Your task to perform on an android device: set default search engine in the chrome app Image 0: 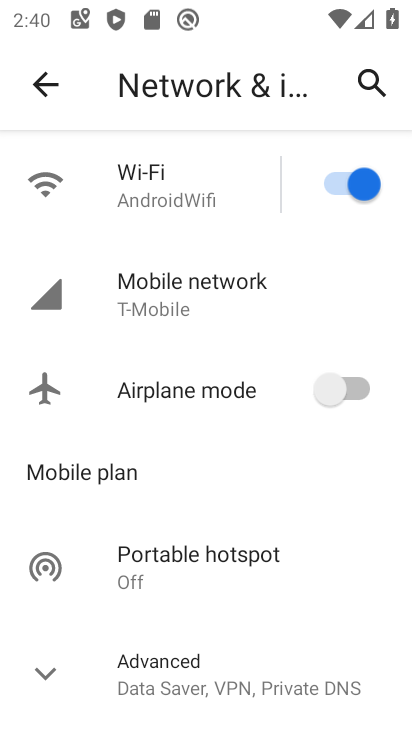
Step 0: press home button
Your task to perform on an android device: set default search engine in the chrome app Image 1: 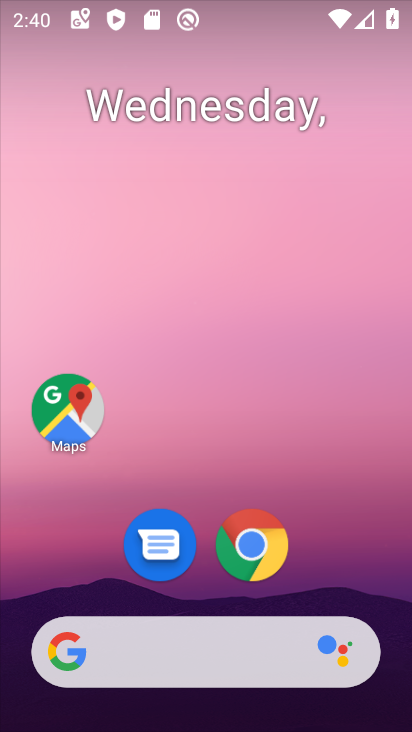
Step 1: drag from (208, 662) to (321, 190)
Your task to perform on an android device: set default search engine in the chrome app Image 2: 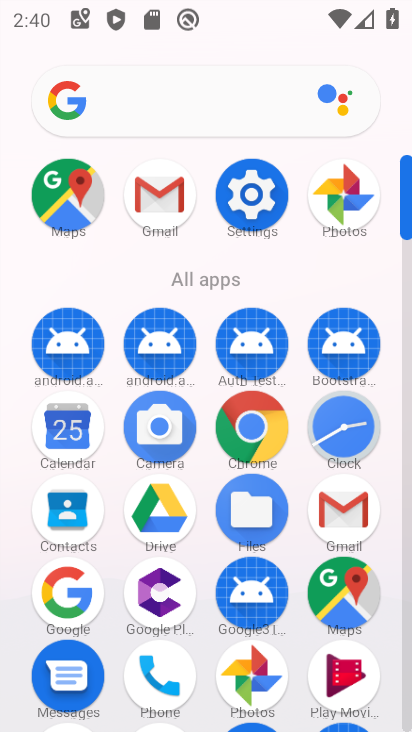
Step 2: click (256, 438)
Your task to perform on an android device: set default search engine in the chrome app Image 3: 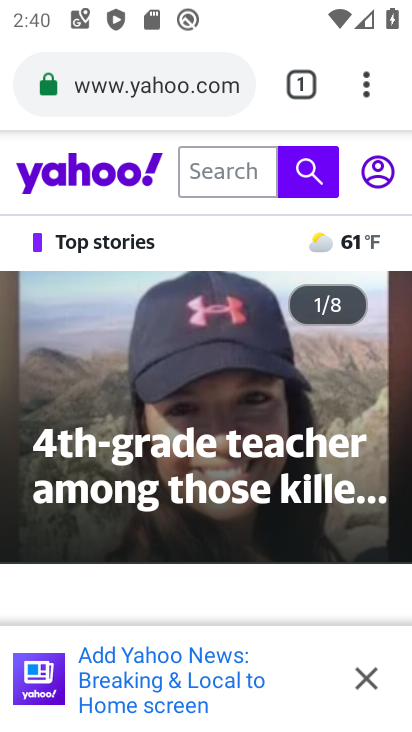
Step 3: drag from (362, 88) to (129, 598)
Your task to perform on an android device: set default search engine in the chrome app Image 4: 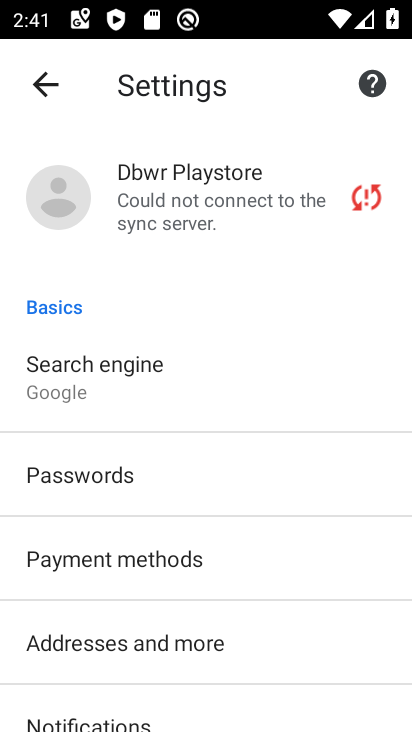
Step 4: click (86, 395)
Your task to perform on an android device: set default search engine in the chrome app Image 5: 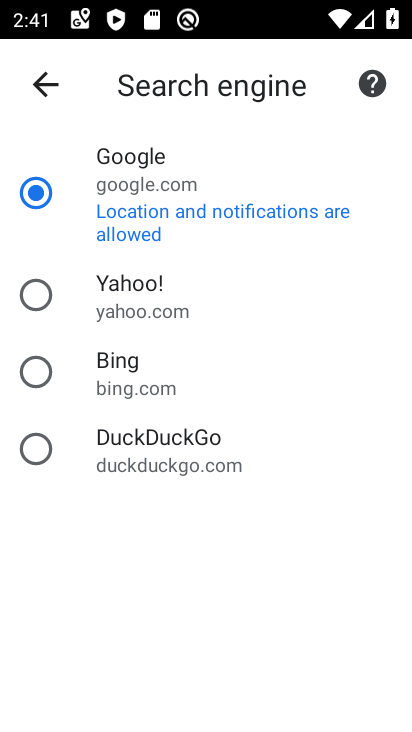
Step 5: click (35, 290)
Your task to perform on an android device: set default search engine in the chrome app Image 6: 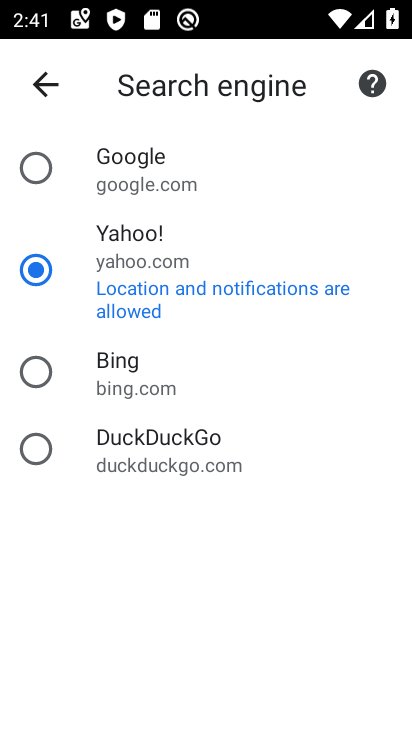
Step 6: task complete